Your task to perform on an android device: toggle pop-ups in chrome Image 0: 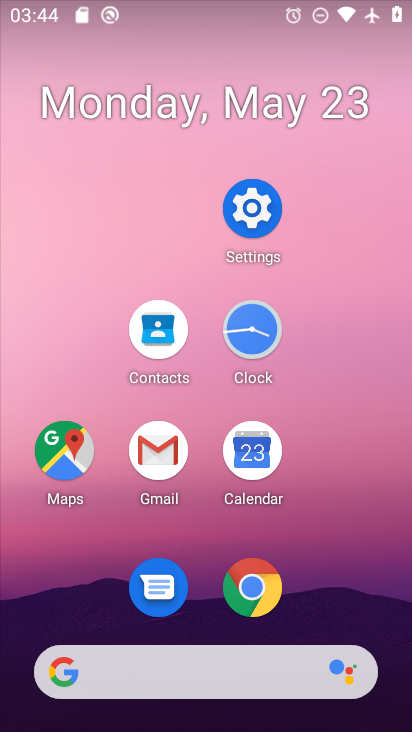
Step 0: click (260, 594)
Your task to perform on an android device: toggle pop-ups in chrome Image 1: 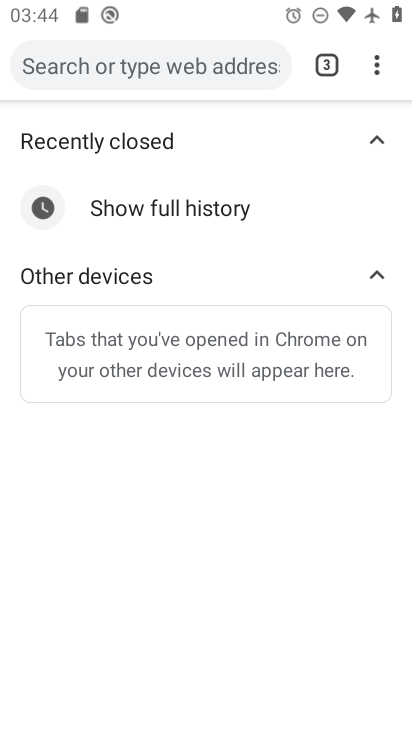
Step 1: click (371, 71)
Your task to perform on an android device: toggle pop-ups in chrome Image 2: 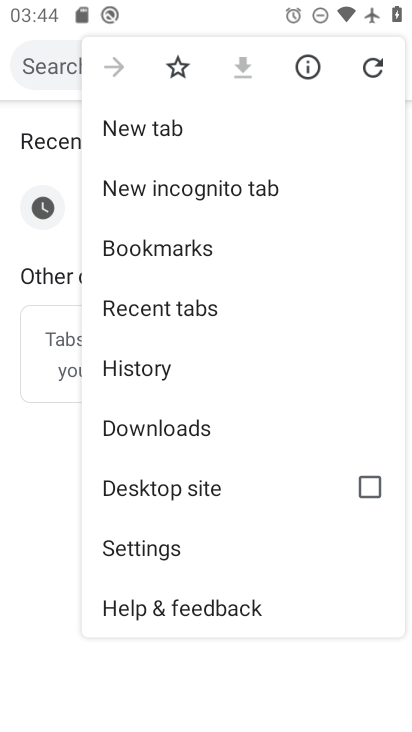
Step 2: click (173, 539)
Your task to perform on an android device: toggle pop-ups in chrome Image 3: 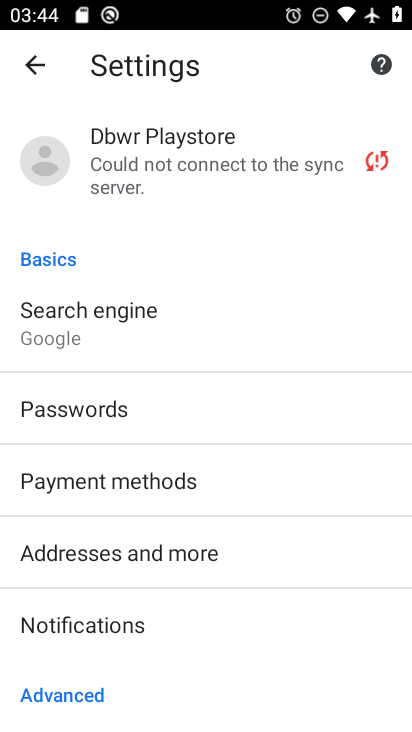
Step 3: drag from (234, 581) to (237, 269)
Your task to perform on an android device: toggle pop-ups in chrome Image 4: 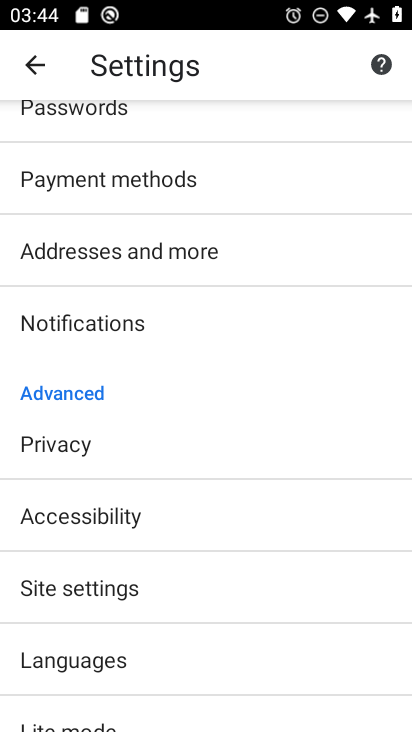
Step 4: drag from (184, 670) to (211, 230)
Your task to perform on an android device: toggle pop-ups in chrome Image 5: 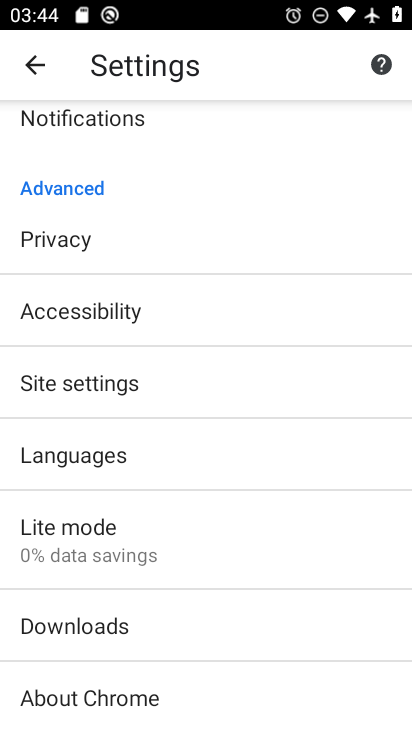
Step 5: drag from (159, 562) to (176, 445)
Your task to perform on an android device: toggle pop-ups in chrome Image 6: 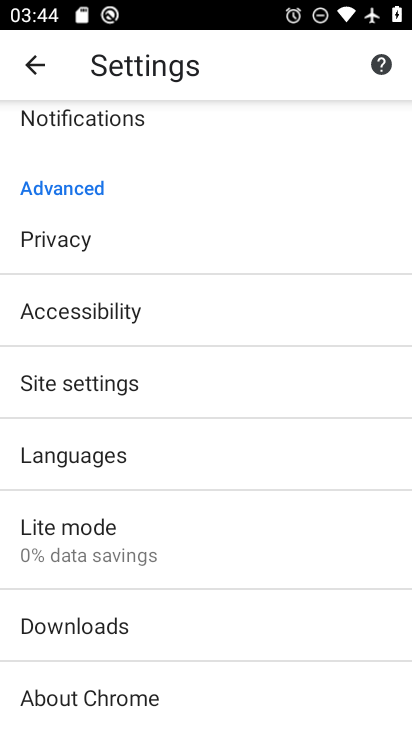
Step 6: click (175, 363)
Your task to perform on an android device: toggle pop-ups in chrome Image 7: 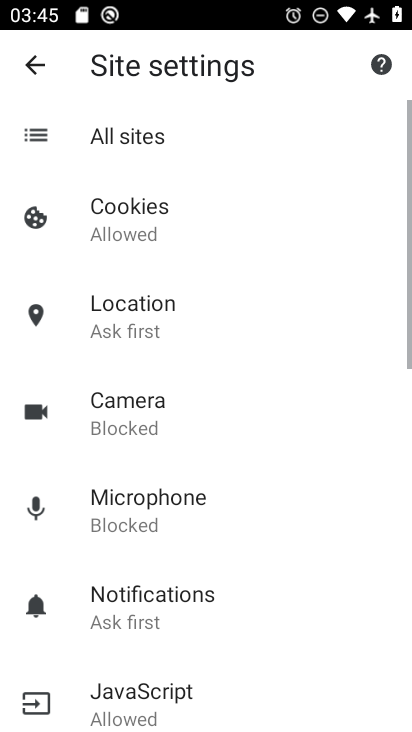
Step 7: drag from (200, 594) to (211, 354)
Your task to perform on an android device: toggle pop-ups in chrome Image 8: 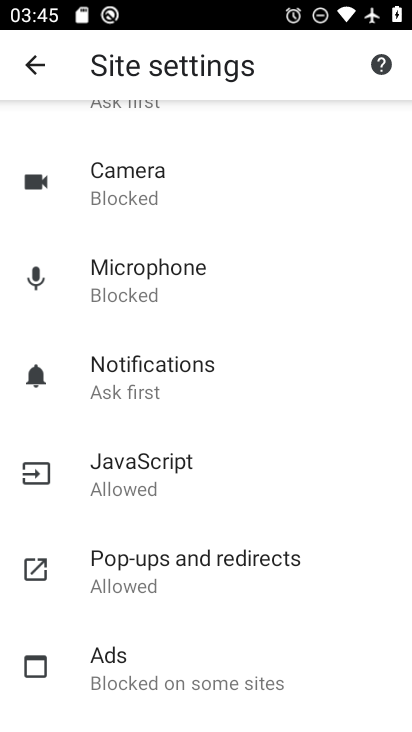
Step 8: click (212, 563)
Your task to perform on an android device: toggle pop-ups in chrome Image 9: 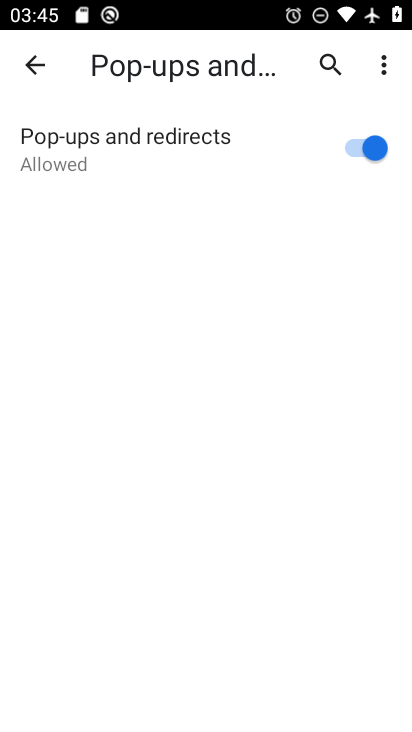
Step 9: click (370, 145)
Your task to perform on an android device: toggle pop-ups in chrome Image 10: 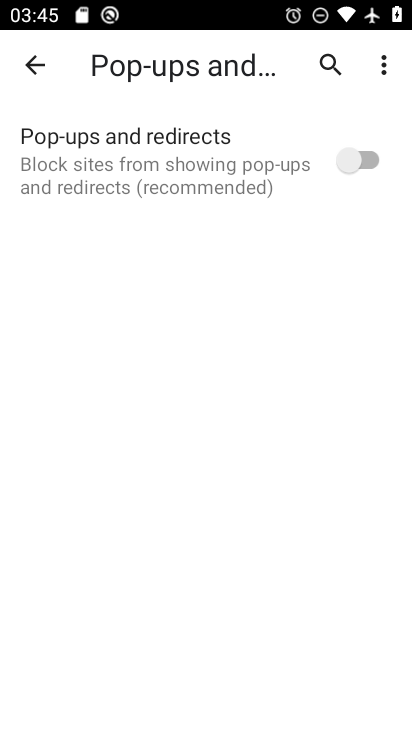
Step 10: task complete